Your task to perform on an android device: open sync settings in chrome Image 0: 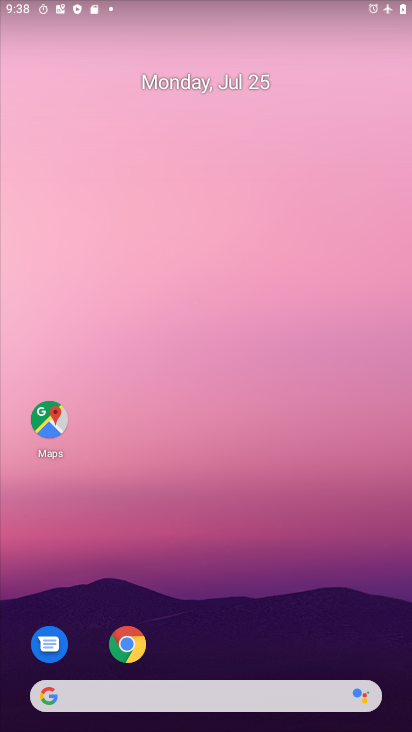
Step 0: drag from (290, 623) to (111, 195)
Your task to perform on an android device: open sync settings in chrome Image 1: 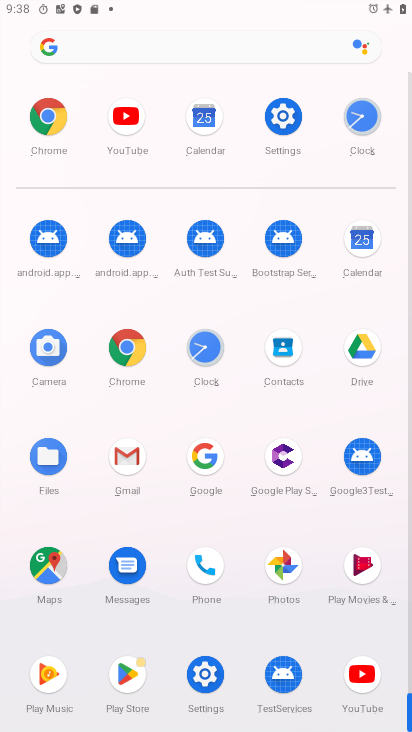
Step 1: click (269, 131)
Your task to perform on an android device: open sync settings in chrome Image 2: 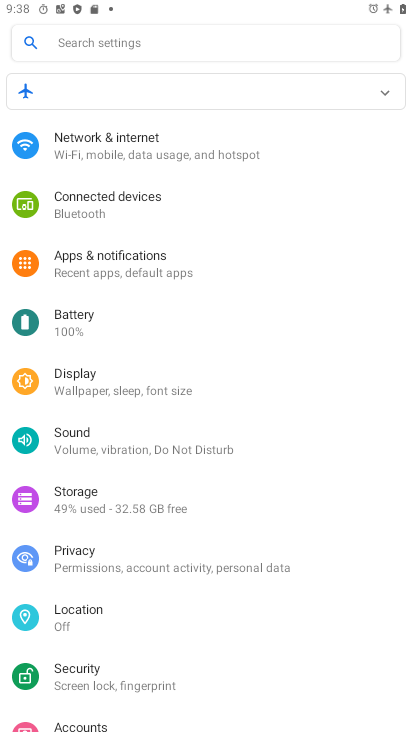
Step 2: drag from (255, 456) to (193, 109)
Your task to perform on an android device: open sync settings in chrome Image 3: 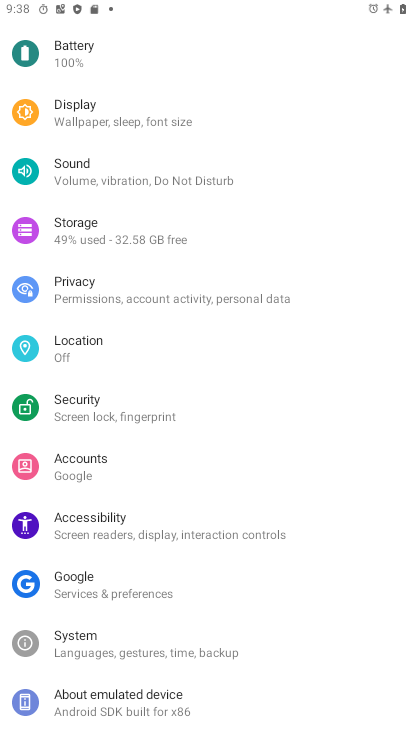
Step 3: press home button
Your task to perform on an android device: open sync settings in chrome Image 4: 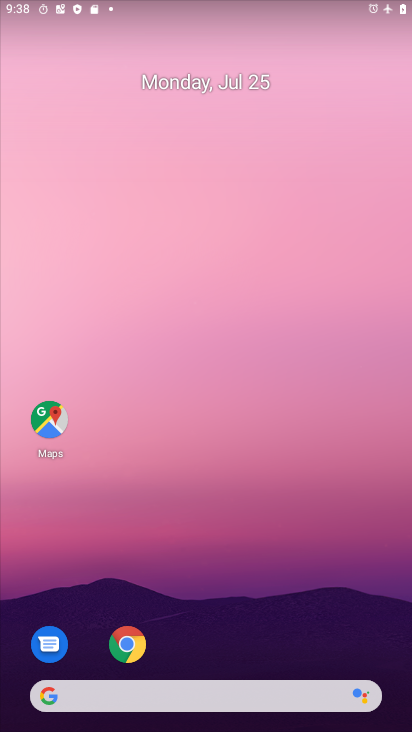
Step 4: click (147, 645)
Your task to perform on an android device: open sync settings in chrome Image 5: 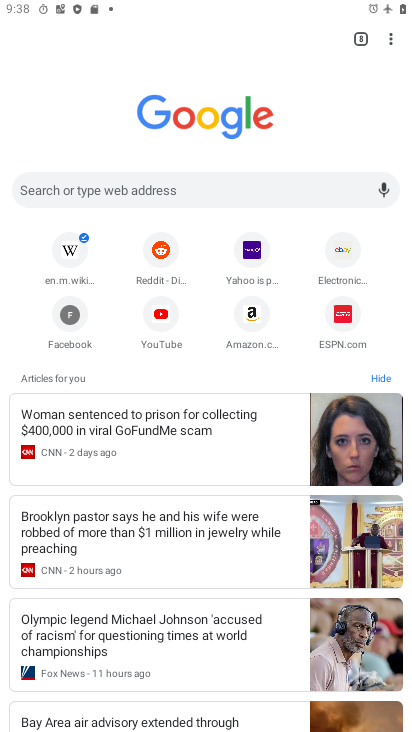
Step 5: click (390, 39)
Your task to perform on an android device: open sync settings in chrome Image 6: 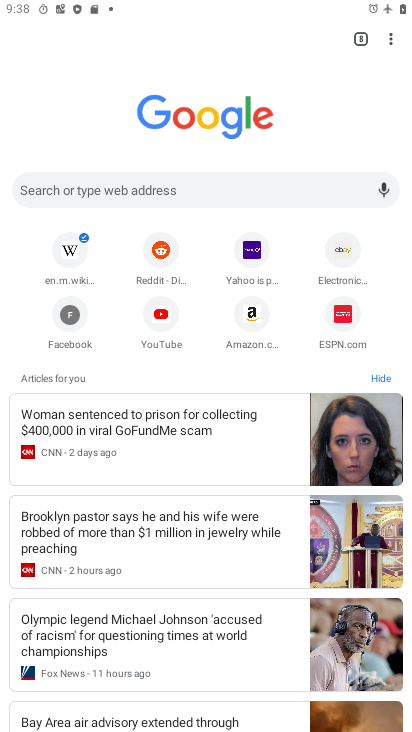
Step 6: click (391, 40)
Your task to perform on an android device: open sync settings in chrome Image 7: 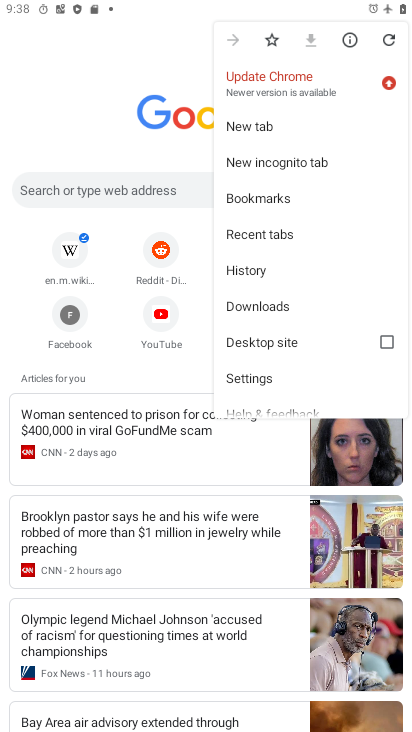
Step 7: click (258, 371)
Your task to perform on an android device: open sync settings in chrome Image 8: 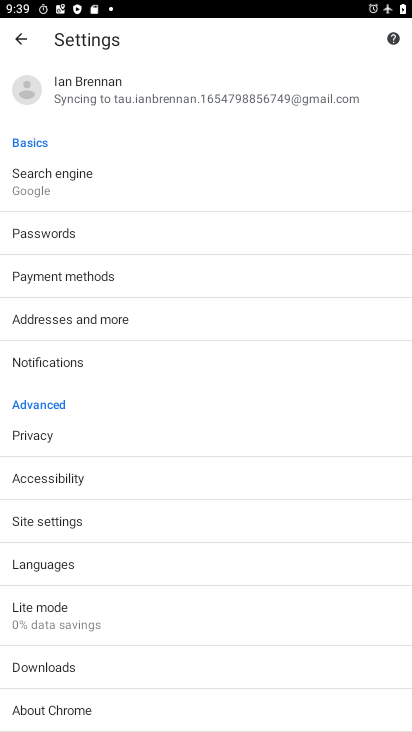
Step 8: click (132, 93)
Your task to perform on an android device: open sync settings in chrome Image 9: 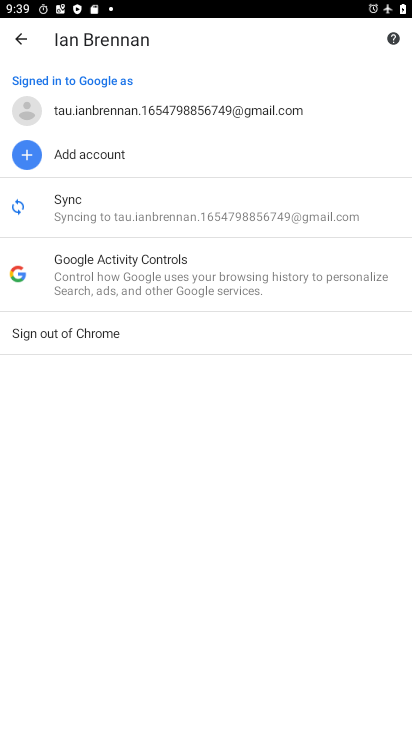
Step 9: click (225, 204)
Your task to perform on an android device: open sync settings in chrome Image 10: 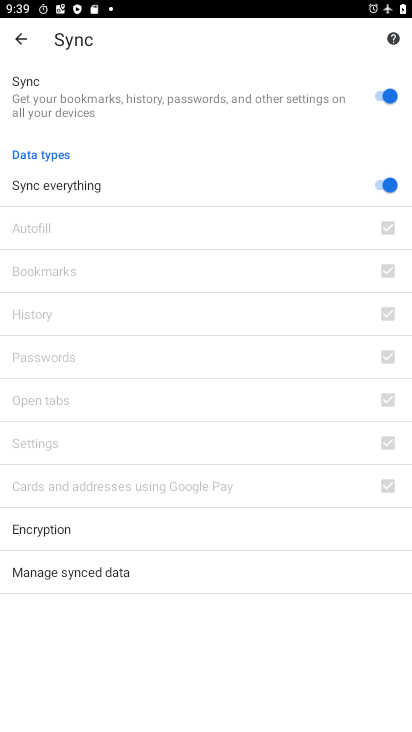
Step 10: task complete